Your task to perform on an android device: Open the stopwatch Image 0: 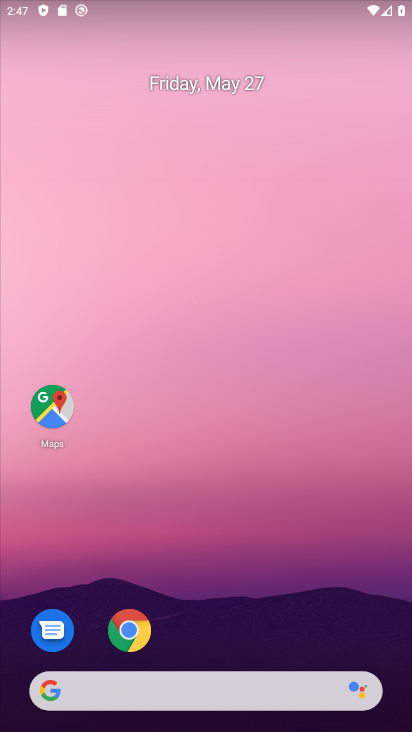
Step 0: drag from (187, 445) to (177, 170)
Your task to perform on an android device: Open the stopwatch Image 1: 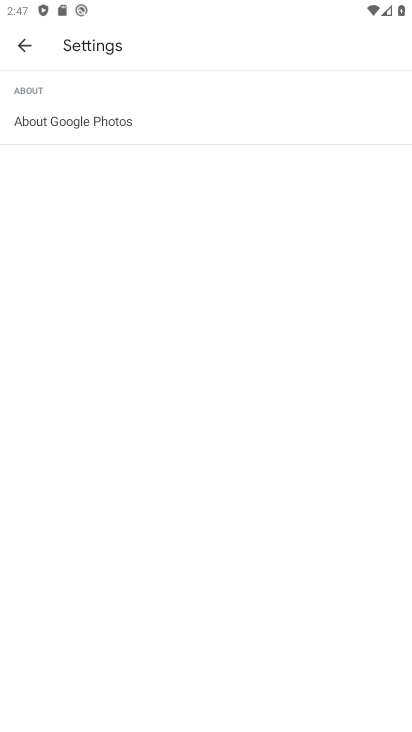
Step 1: press home button
Your task to perform on an android device: Open the stopwatch Image 2: 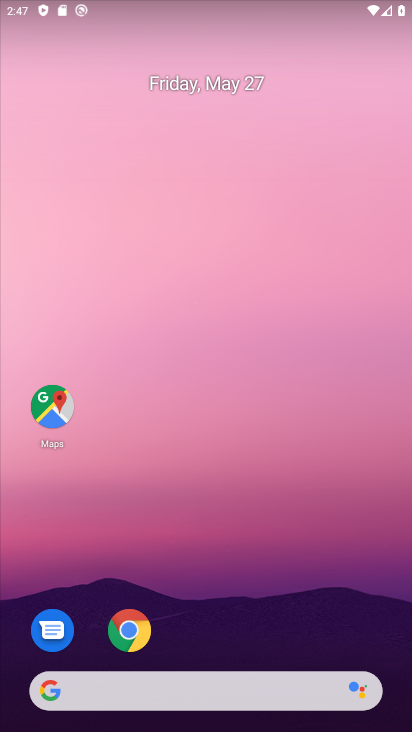
Step 2: drag from (186, 666) to (101, 52)
Your task to perform on an android device: Open the stopwatch Image 3: 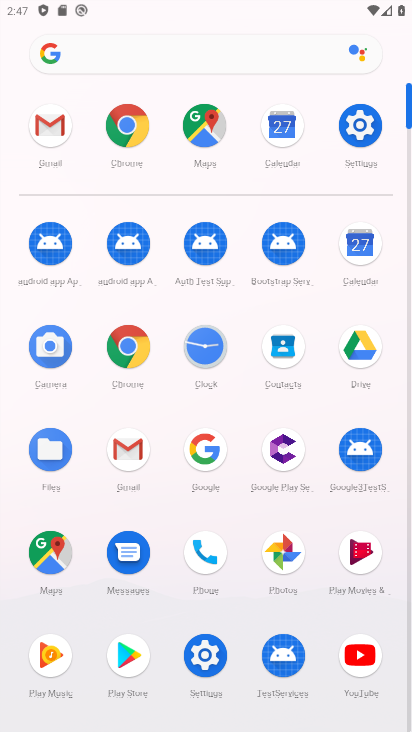
Step 3: click (199, 344)
Your task to perform on an android device: Open the stopwatch Image 4: 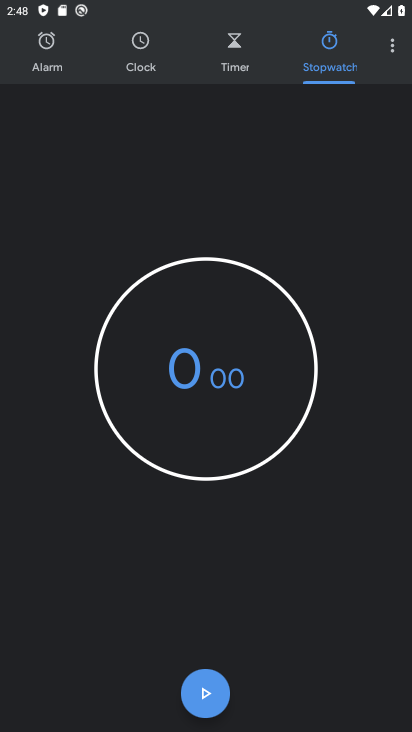
Step 4: task complete